Your task to perform on an android device: turn off translation in the chrome app Image 0: 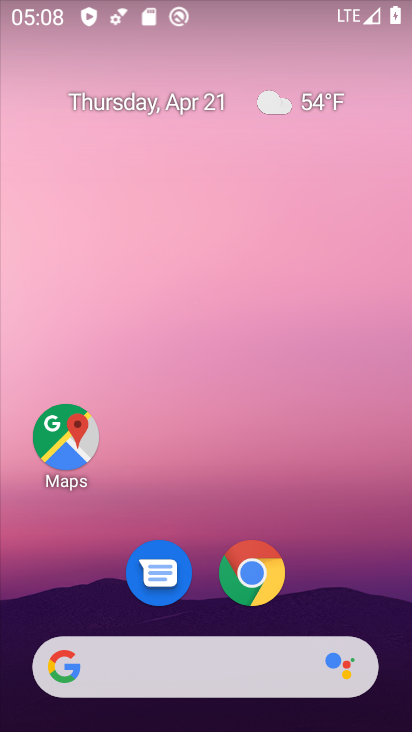
Step 0: click (253, 570)
Your task to perform on an android device: turn off translation in the chrome app Image 1: 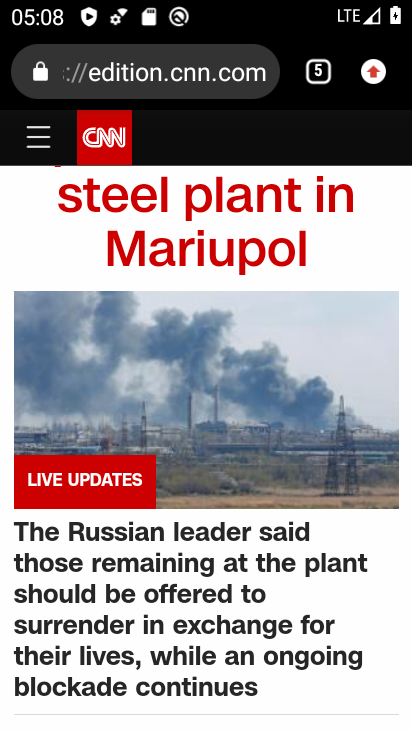
Step 1: click (376, 71)
Your task to perform on an android device: turn off translation in the chrome app Image 2: 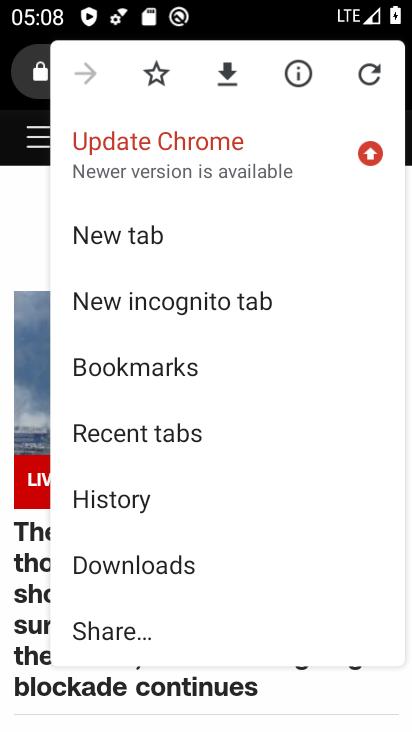
Step 2: drag from (269, 566) to (294, 342)
Your task to perform on an android device: turn off translation in the chrome app Image 3: 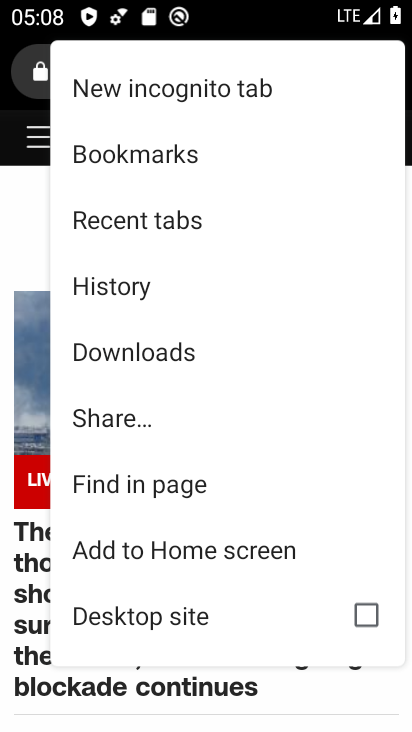
Step 3: drag from (291, 582) to (319, 302)
Your task to perform on an android device: turn off translation in the chrome app Image 4: 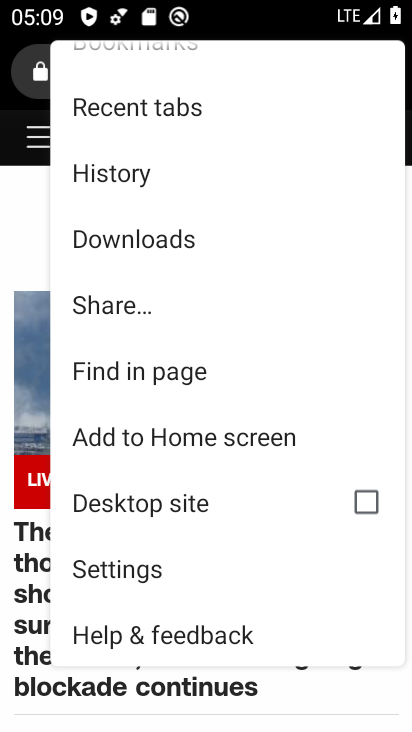
Step 4: click (120, 570)
Your task to perform on an android device: turn off translation in the chrome app Image 5: 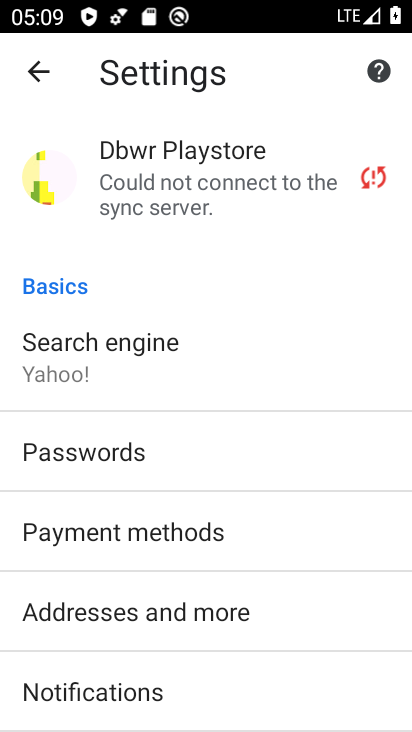
Step 5: drag from (281, 649) to (291, 377)
Your task to perform on an android device: turn off translation in the chrome app Image 6: 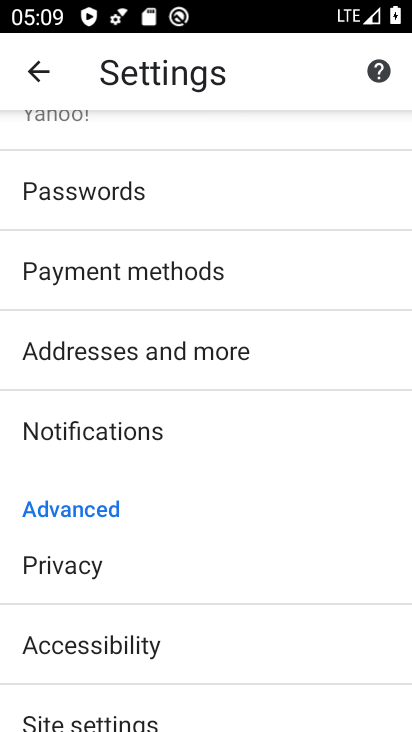
Step 6: drag from (246, 593) to (277, 286)
Your task to perform on an android device: turn off translation in the chrome app Image 7: 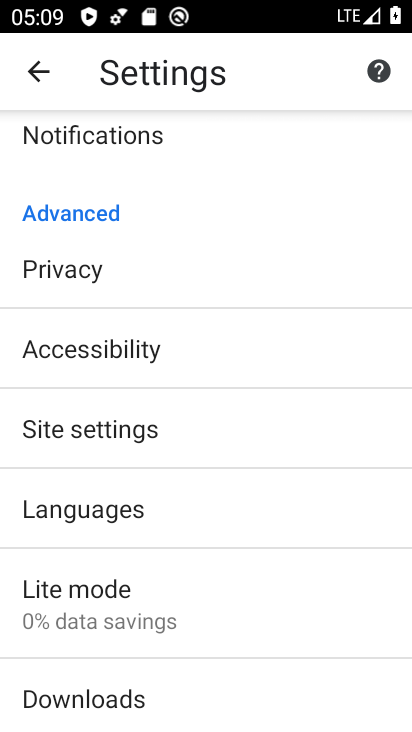
Step 7: click (66, 511)
Your task to perform on an android device: turn off translation in the chrome app Image 8: 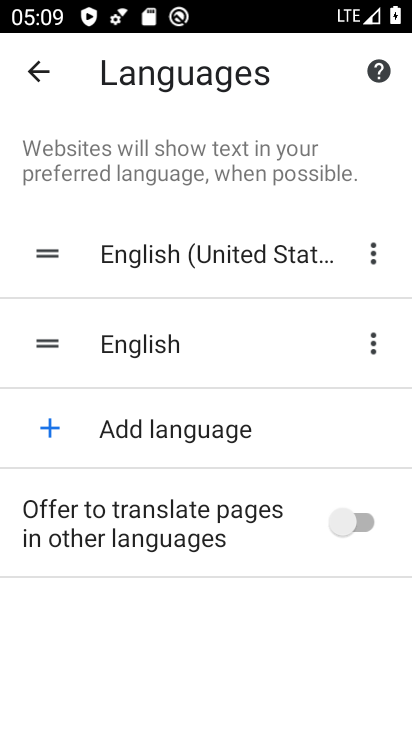
Step 8: task complete